Your task to perform on an android device: Go to Maps Image 0: 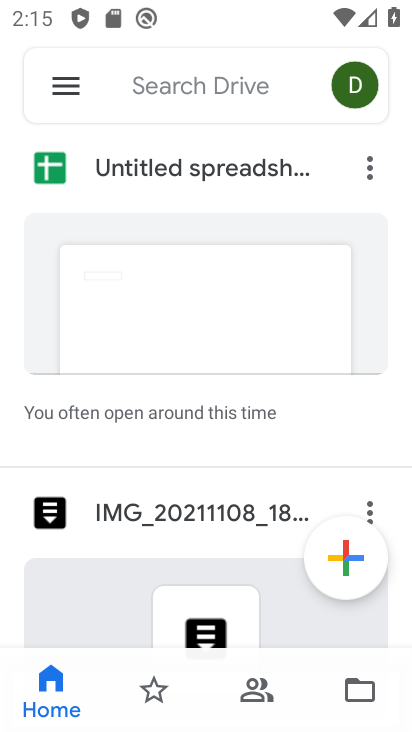
Step 0: press home button
Your task to perform on an android device: Go to Maps Image 1: 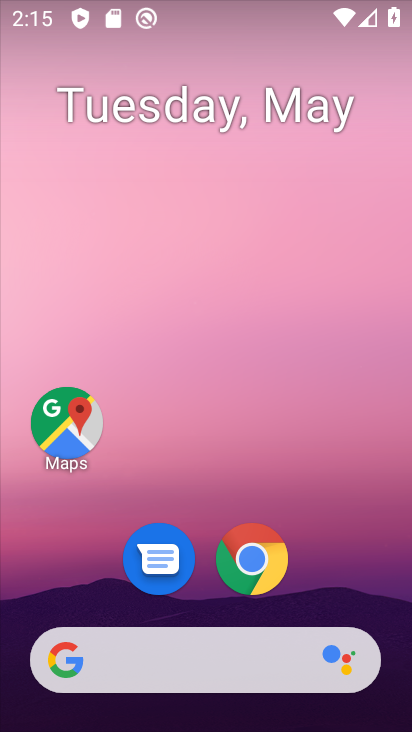
Step 1: click (67, 425)
Your task to perform on an android device: Go to Maps Image 2: 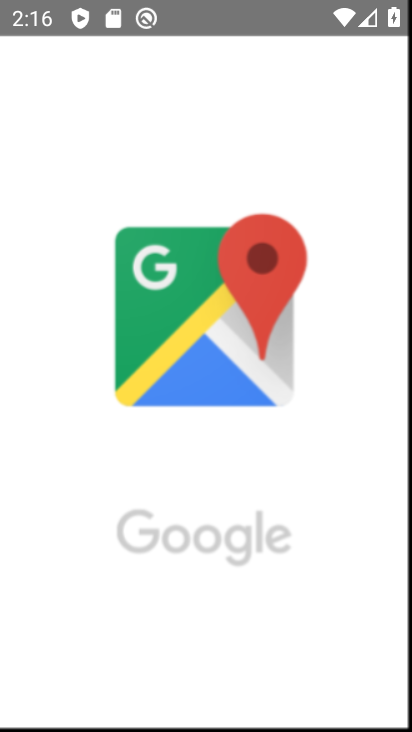
Step 2: click (268, 369)
Your task to perform on an android device: Go to Maps Image 3: 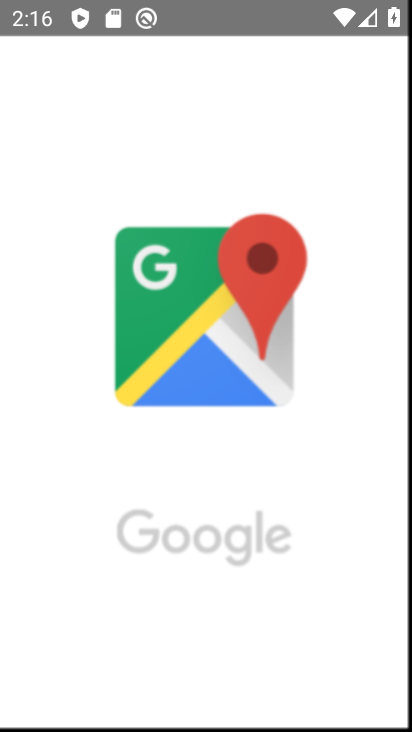
Step 3: task complete